Your task to perform on an android device: turn off notifications settings in the gmail app Image 0: 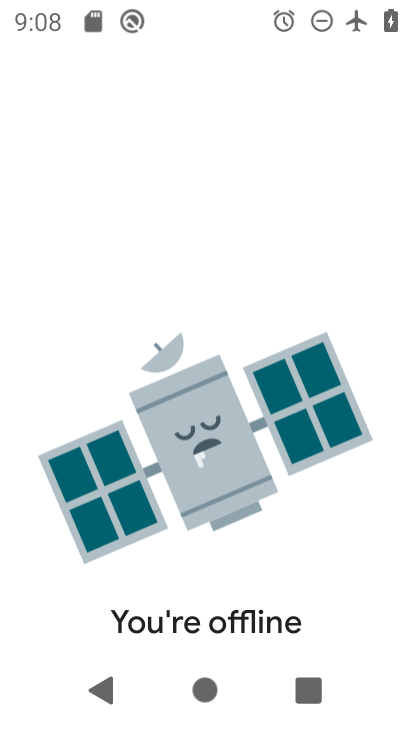
Step 0: press home button
Your task to perform on an android device: turn off notifications settings in the gmail app Image 1: 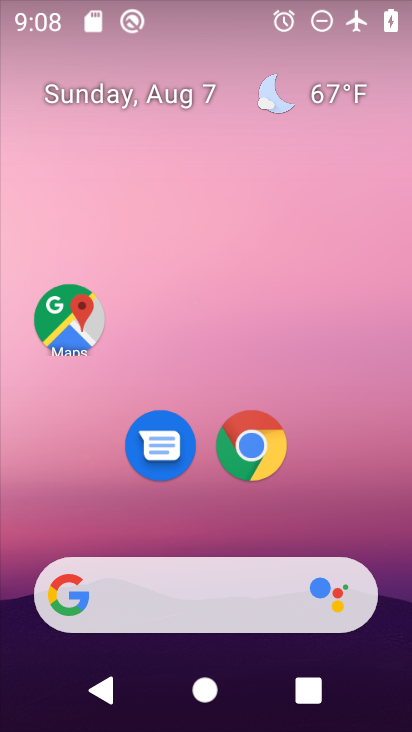
Step 1: drag from (286, 525) to (329, 106)
Your task to perform on an android device: turn off notifications settings in the gmail app Image 2: 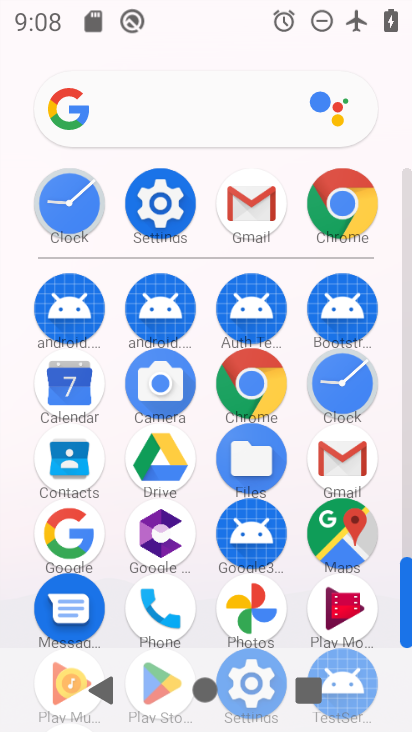
Step 2: click (255, 196)
Your task to perform on an android device: turn off notifications settings in the gmail app Image 3: 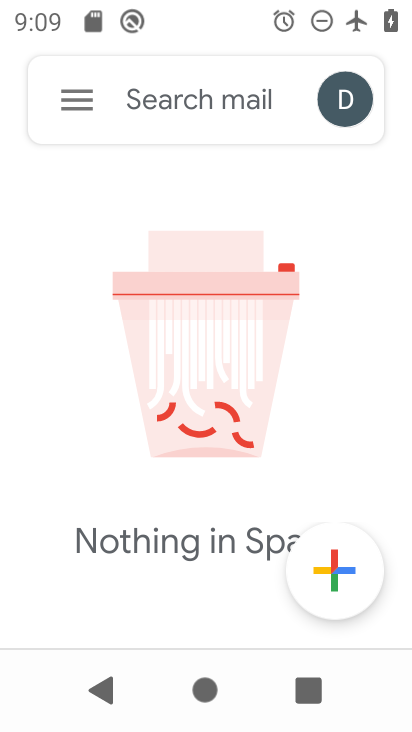
Step 3: click (57, 96)
Your task to perform on an android device: turn off notifications settings in the gmail app Image 4: 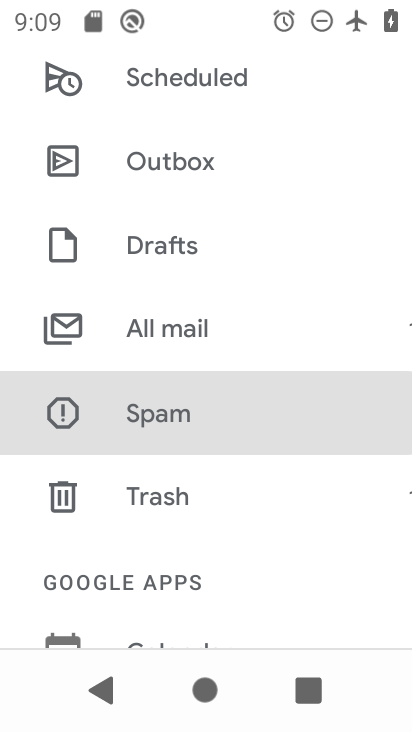
Step 4: drag from (196, 572) to (210, 137)
Your task to perform on an android device: turn off notifications settings in the gmail app Image 5: 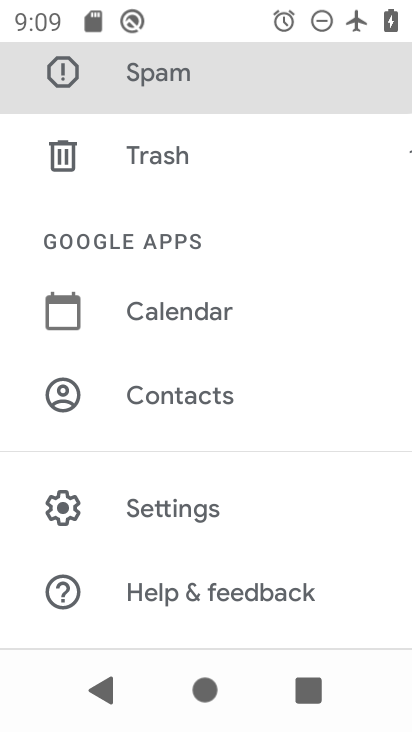
Step 5: click (117, 503)
Your task to perform on an android device: turn off notifications settings in the gmail app Image 6: 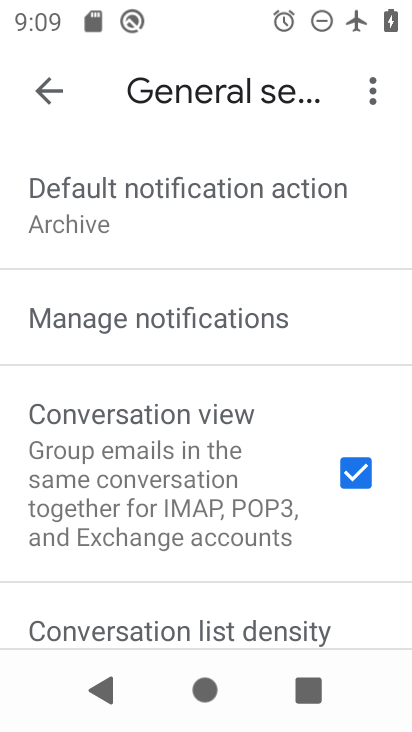
Step 6: click (129, 313)
Your task to perform on an android device: turn off notifications settings in the gmail app Image 7: 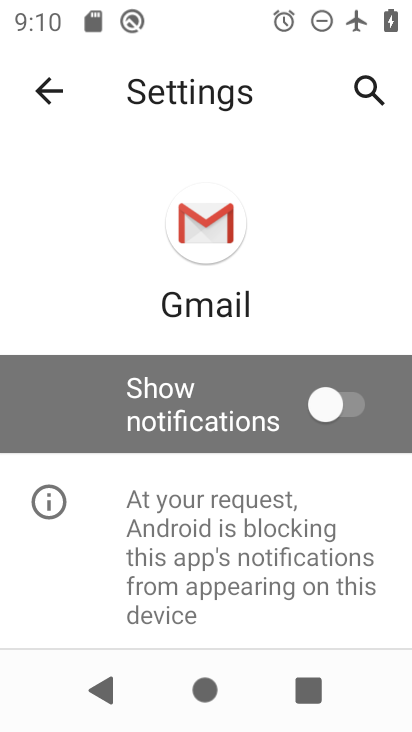
Step 7: task complete